Your task to perform on an android device: Show me the alarms in the clock app Image 0: 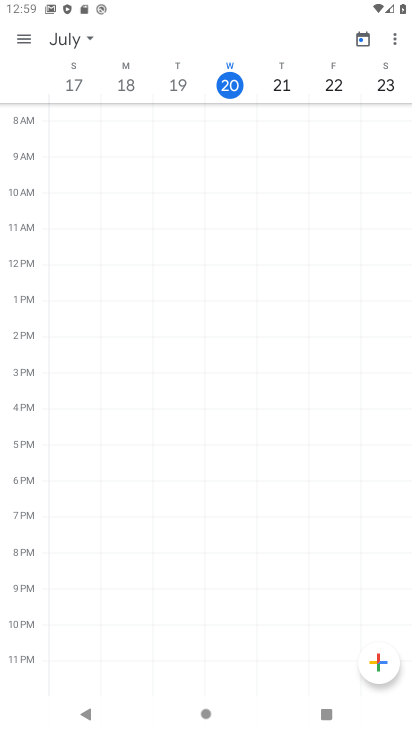
Step 0: press home button
Your task to perform on an android device: Show me the alarms in the clock app Image 1: 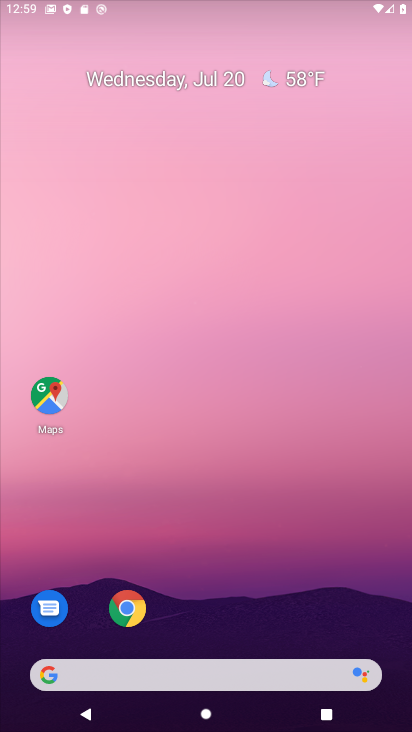
Step 1: drag from (229, 703) to (221, 360)
Your task to perform on an android device: Show me the alarms in the clock app Image 2: 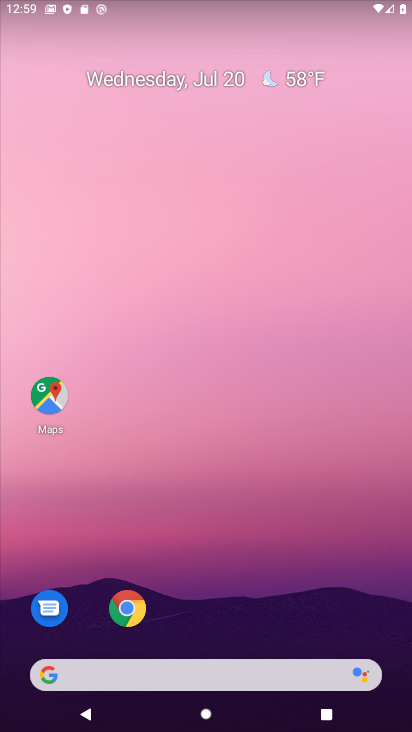
Step 2: drag from (228, 700) to (228, 247)
Your task to perform on an android device: Show me the alarms in the clock app Image 3: 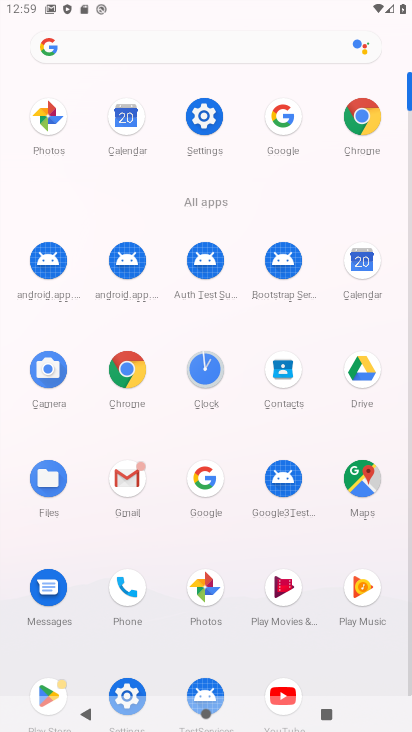
Step 3: click (203, 368)
Your task to perform on an android device: Show me the alarms in the clock app Image 4: 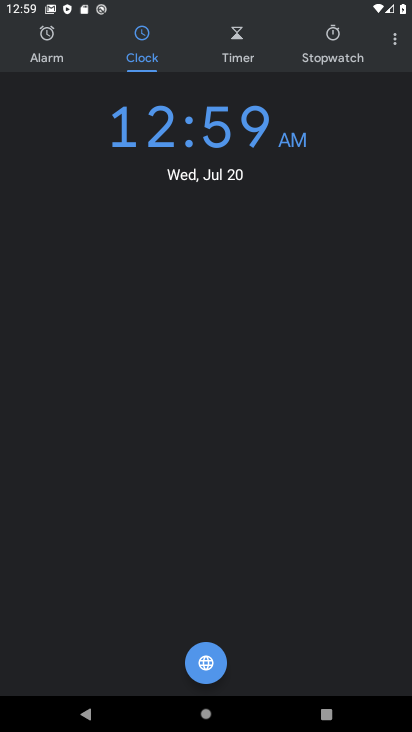
Step 4: click (46, 45)
Your task to perform on an android device: Show me the alarms in the clock app Image 5: 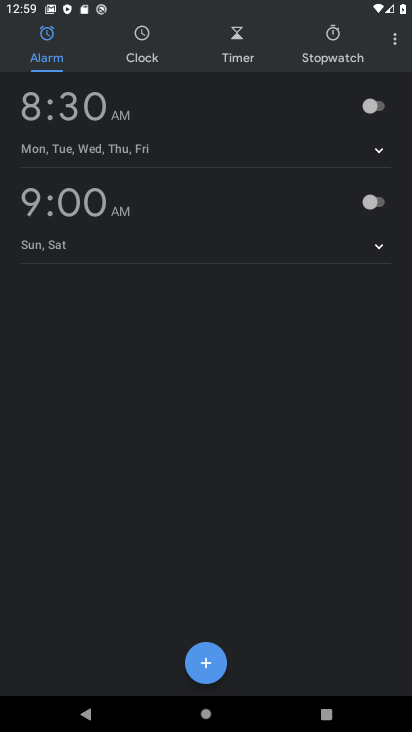
Step 5: task complete